Your task to perform on an android device: Open the map Image 0: 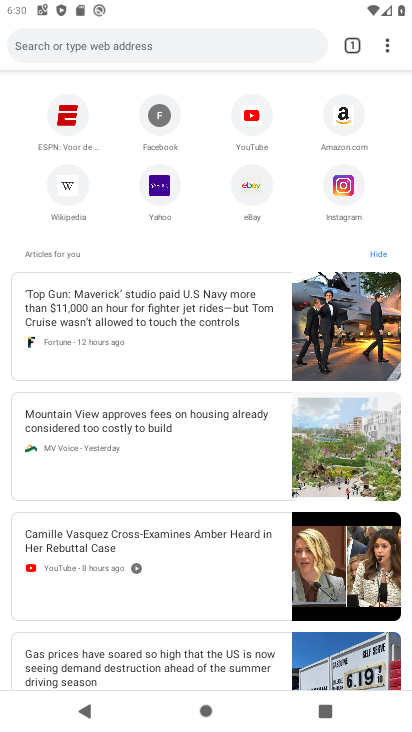
Step 0: press home button
Your task to perform on an android device: Open the map Image 1: 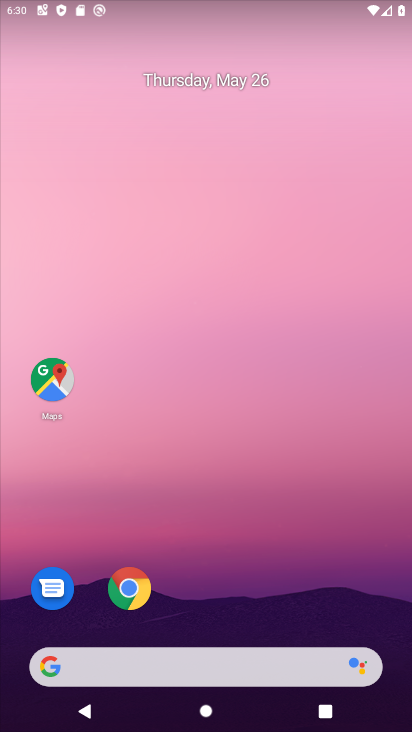
Step 1: drag from (350, 642) to (300, 72)
Your task to perform on an android device: Open the map Image 2: 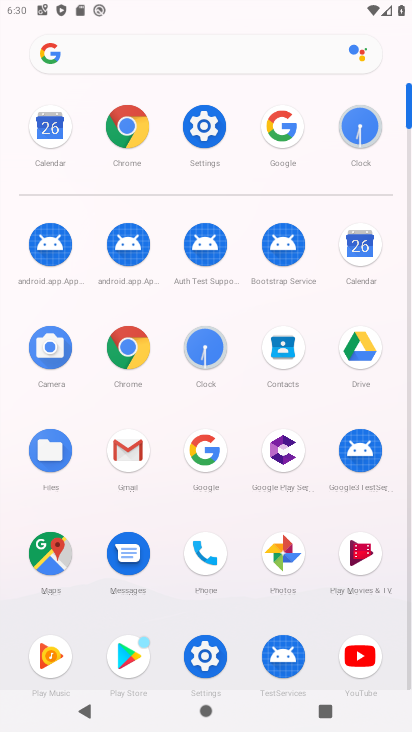
Step 2: click (49, 563)
Your task to perform on an android device: Open the map Image 3: 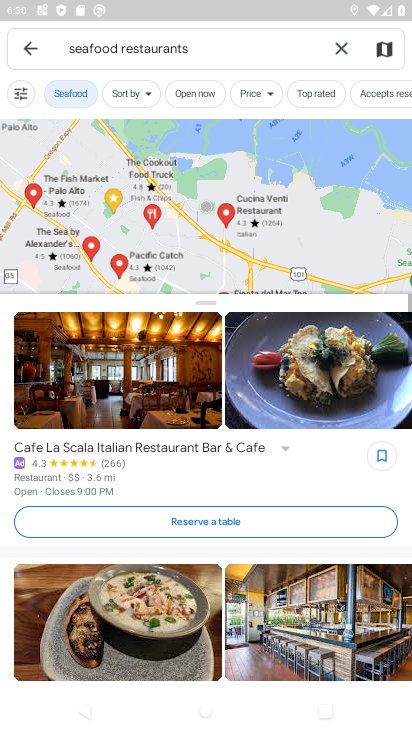
Step 3: click (345, 41)
Your task to perform on an android device: Open the map Image 4: 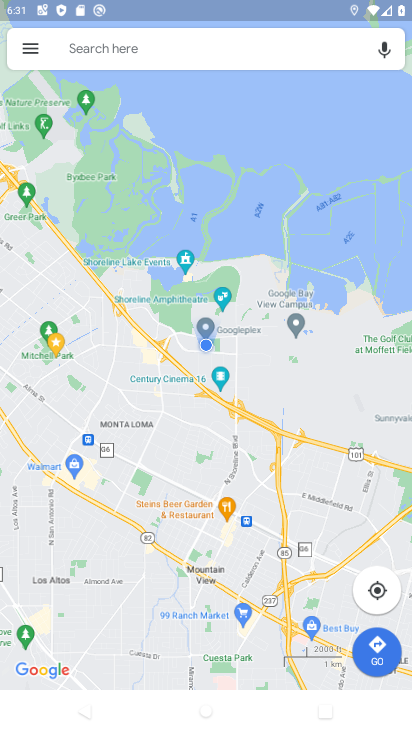
Step 4: task complete